Your task to perform on an android device: Find coffee shops on Maps Image 0: 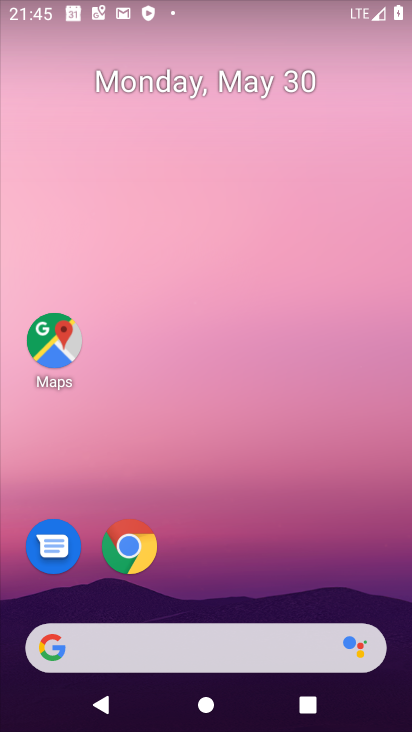
Step 0: drag from (328, 544) to (290, 144)
Your task to perform on an android device: Find coffee shops on Maps Image 1: 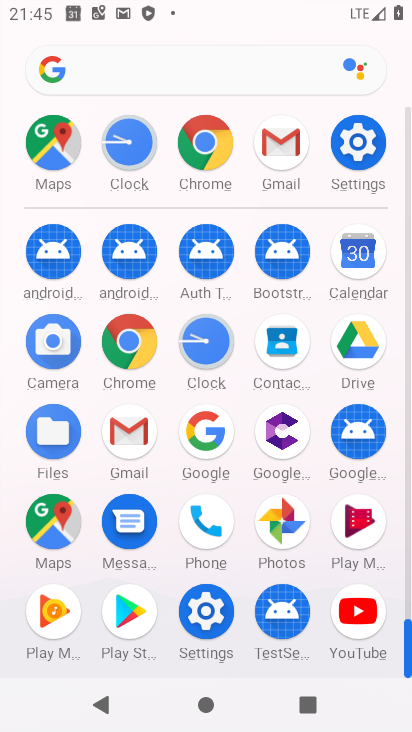
Step 1: click (75, 531)
Your task to perform on an android device: Find coffee shops on Maps Image 2: 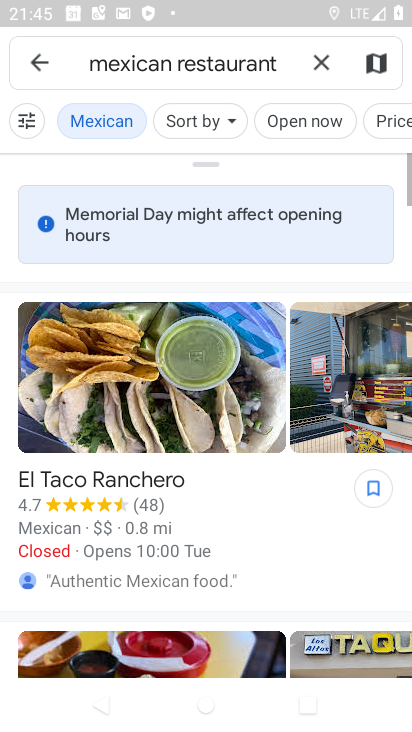
Step 2: click (329, 69)
Your task to perform on an android device: Find coffee shops on Maps Image 3: 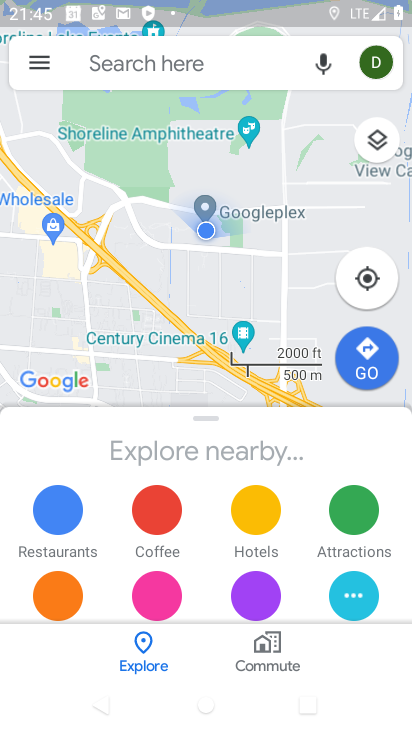
Step 3: click (211, 64)
Your task to perform on an android device: Find coffee shops on Maps Image 4: 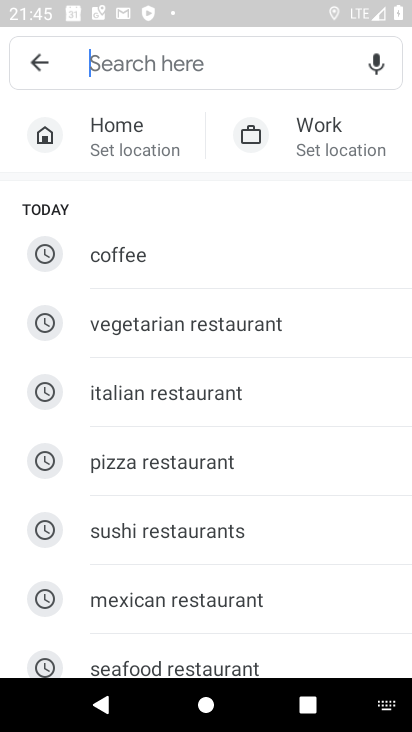
Step 4: type "coffee shops"
Your task to perform on an android device: Find coffee shops on Maps Image 5: 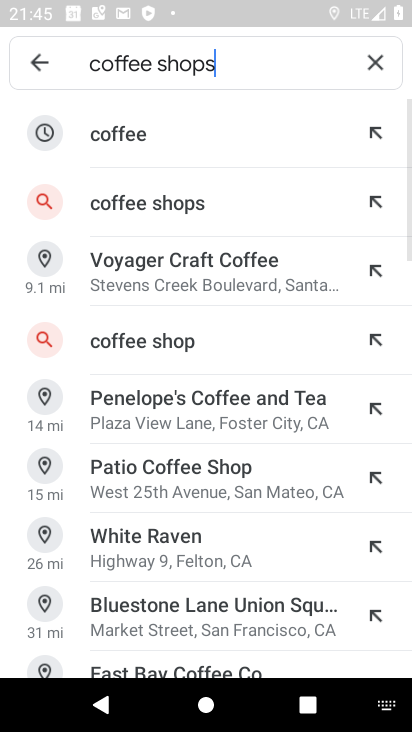
Step 5: click (197, 208)
Your task to perform on an android device: Find coffee shops on Maps Image 6: 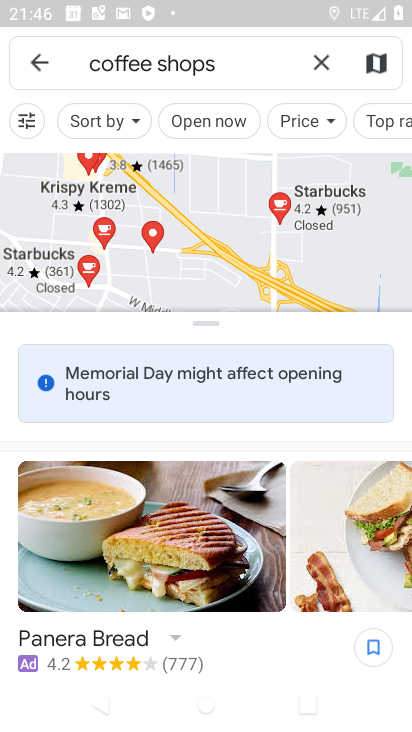
Step 6: task complete